Your task to perform on an android device: remove spam from my inbox in the gmail app Image 0: 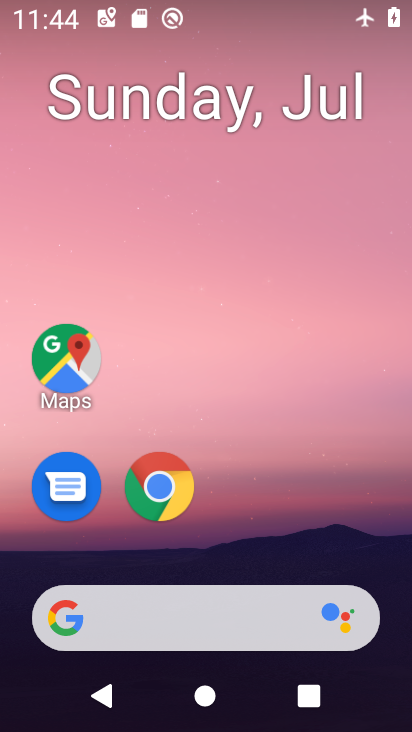
Step 0: drag from (356, 529) to (327, 117)
Your task to perform on an android device: remove spam from my inbox in the gmail app Image 1: 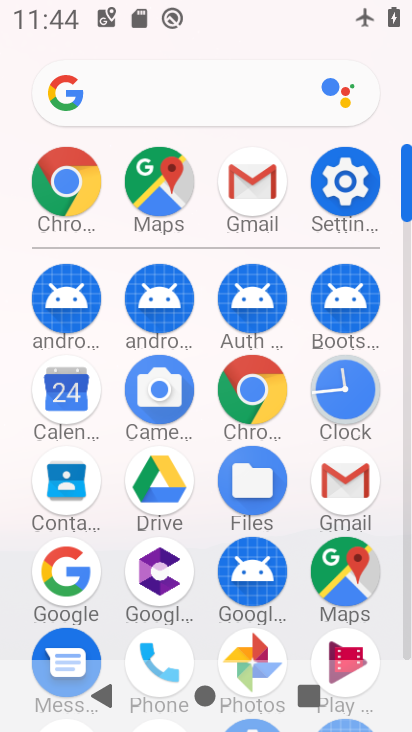
Step 1: click (350, 480)
Your task to perform on an android device: remove spam from my inbox in the gmail app Image 2: 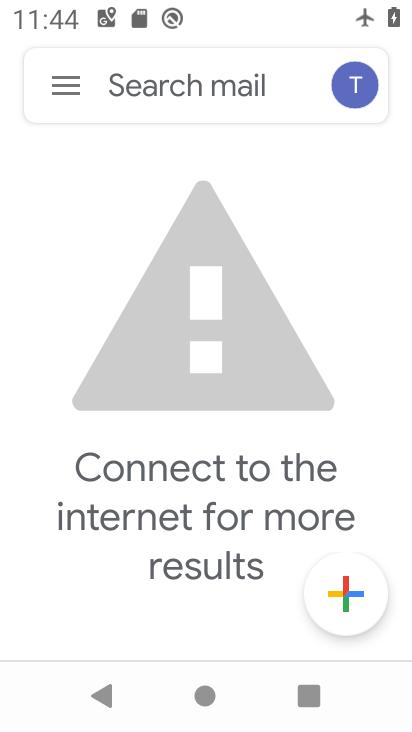
Step 2: click (58, 92)
Your task to perform on an android device: remove spam from my inbox in the gmail app Image 3: 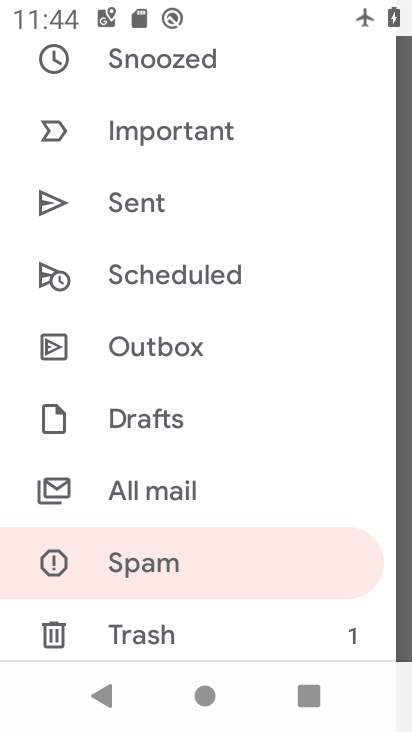
Step 3: click (288, 559)
Your task to perform on an android device: remove spam from my inbox in the gmail app Image 4: 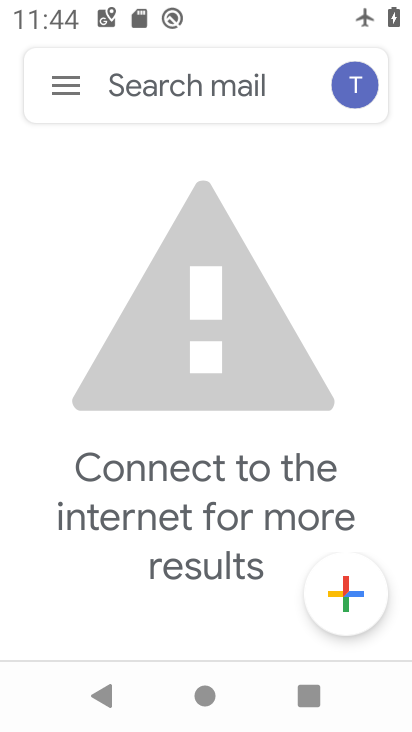
Step 4: task complete